Your task to perform on an android device: Turn on the flashlight Image 0: 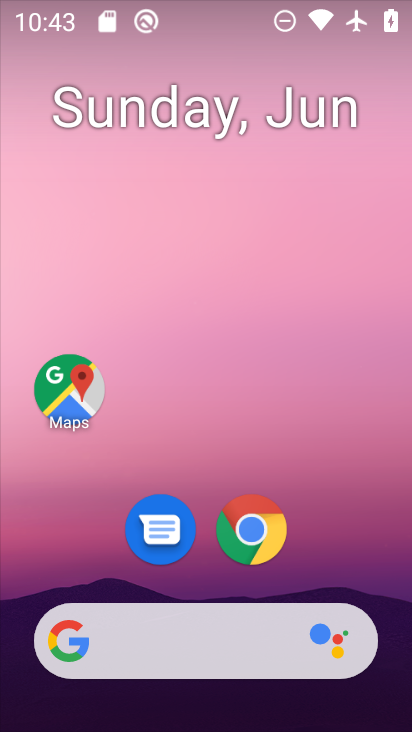
Step 0: drag from (230, 14) to (267, 407)
Your task to perform on an android device: Turn on the flashlight Image 1: 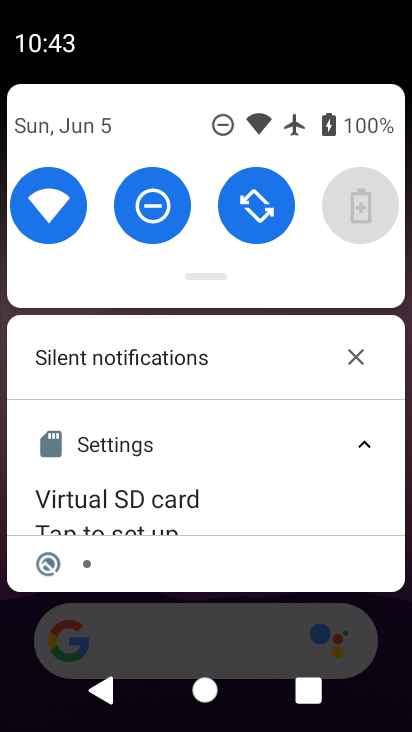
Step 1: drag from (208, 275) to (216, 555)
Your task to perform on an android device: Turn on the flashlight Image 2: 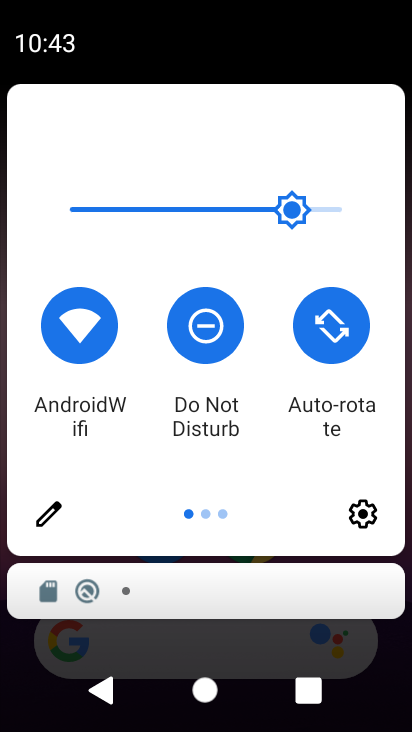
Step 2: click (45, 511)
Your task to perform on an android device: Turn on the flashlight Image 3: 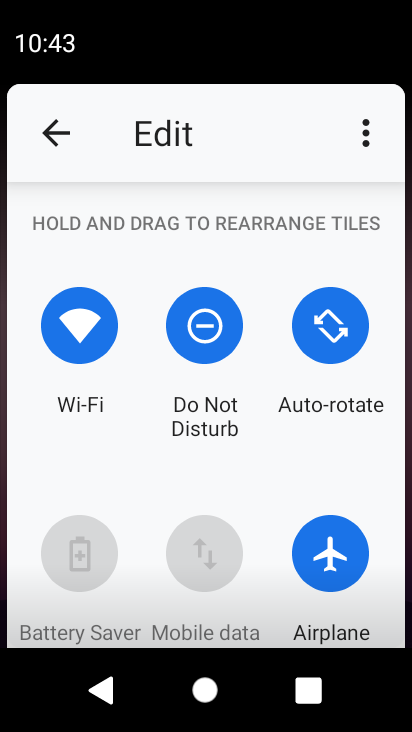
Step 3: task complete